Your task to perform on an android device: turn on sleep mode Image 0: 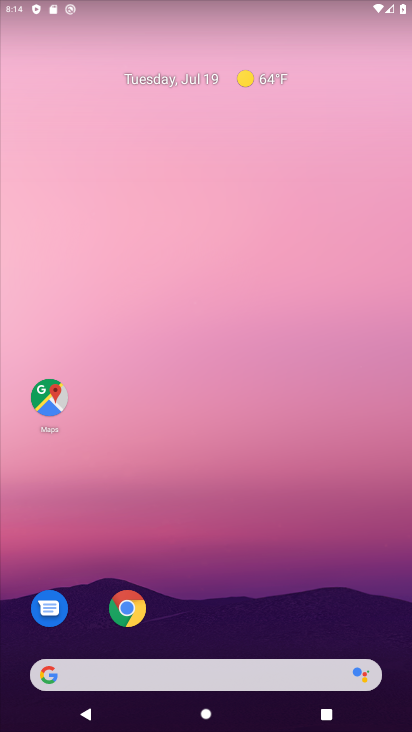
Step 0: drag from (195, 676) to (169, 92)
Your task to perform on an android device: turn on sleep mode Image 1: 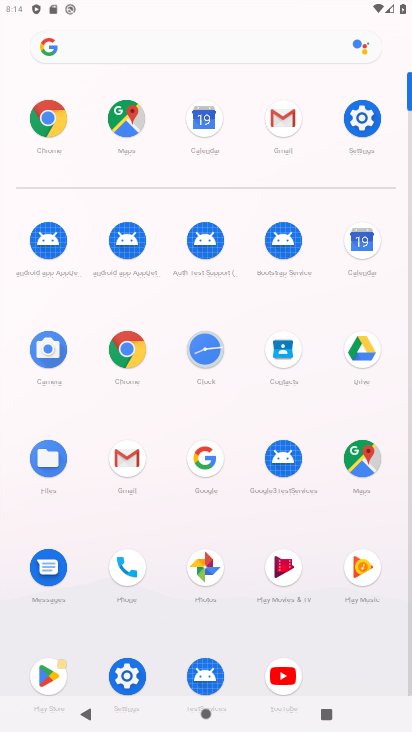
Step 1: click (361, 121)
Your task to perform on an android device: turn on sleep mode Image 2: 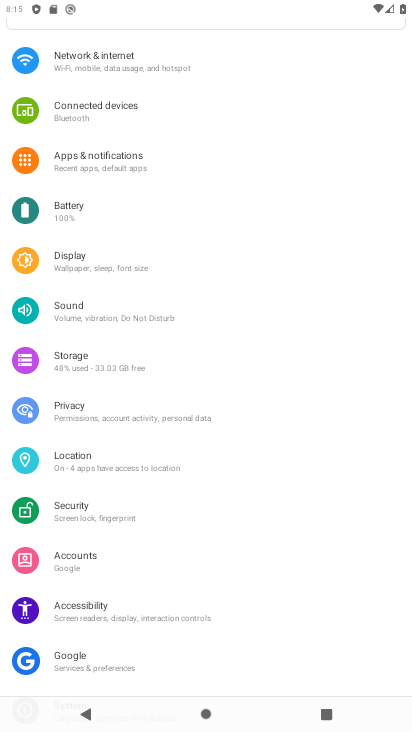
Step 2: click (94, 270)
Your task to perform on an android device: turn on sleep mode Image 3: 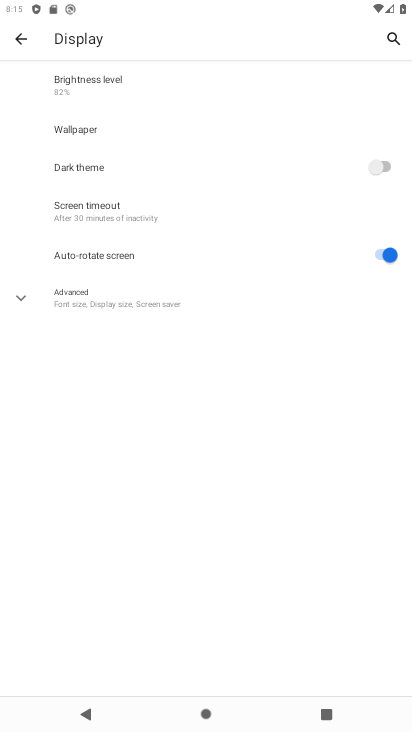
Step 3: click (101, 284)
Your task to perform on an android device: turn on sleep mode Image 4: 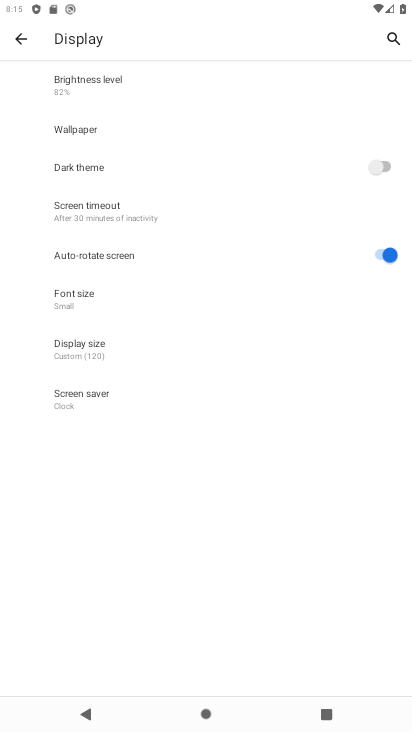
Step 4: task complete